Your task to perform on an android device: move an email to a new category in the gmail app Image 0: 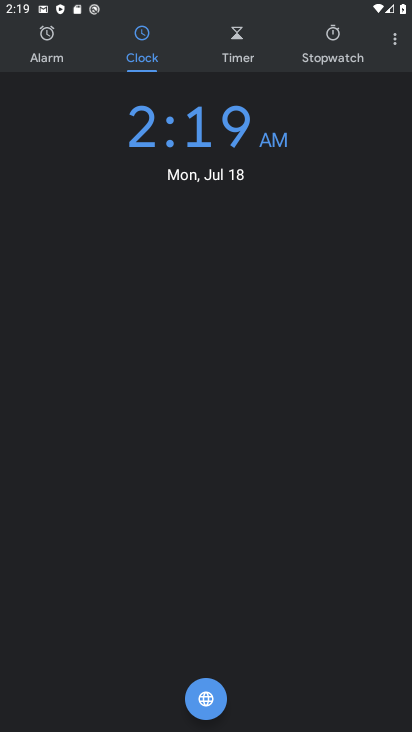
Step 0: press back button
Your task to perform on an android device: move an email to a new category in the gmail app Image 1: 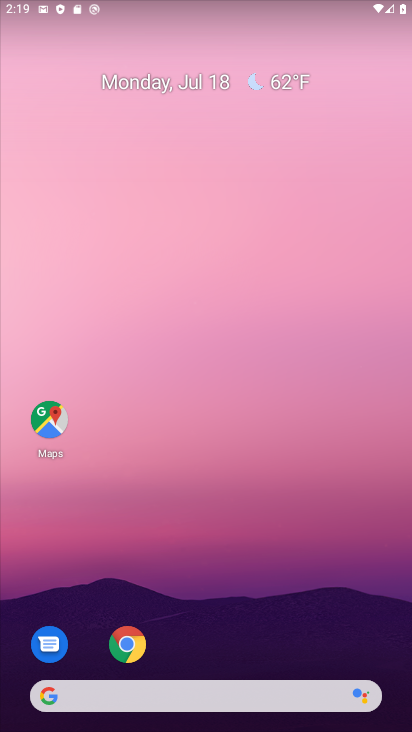
Step 1: drag from (168, 697) to (173, 158)
Your task to perform on an android device: move an email to a new category in the gmail app Image 2: 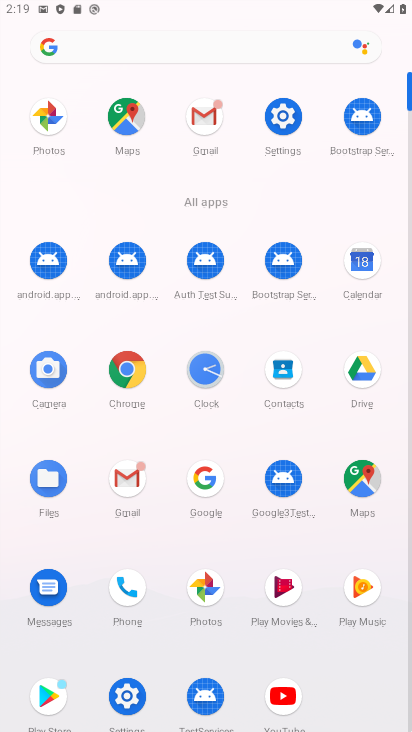
Step 2: click (119, 476)
Your task to perform on an android device: move an email to a new category in the gmail app Image 3: 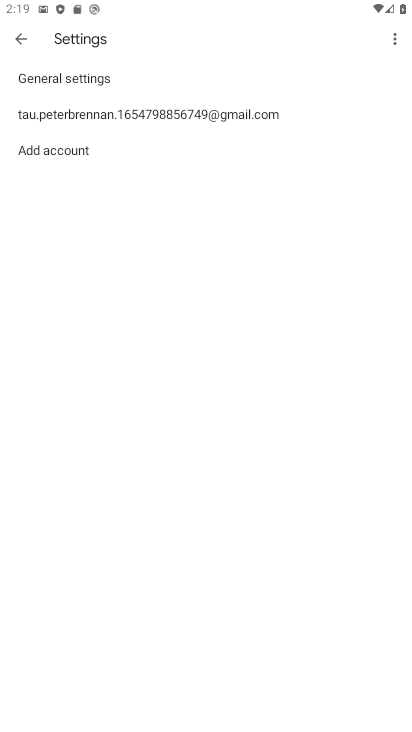
Step 3: click (124, 477)
Your task to perform on an android device: move an email to a new category in the gmail app Image 4: 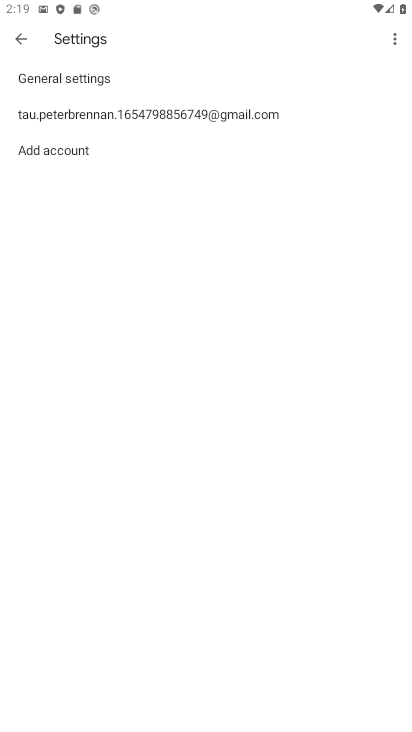
Step 4: click (127, 478)
Your task to perform on an android device: move an email to a new category in the gmail app Image 5: 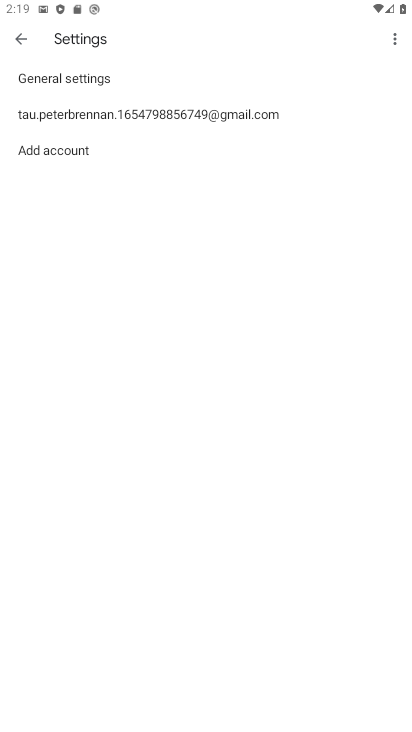
Step 5: click (128, 479)
Your task to perform on an android device: move an email to a new category in the gmail app Image 6: 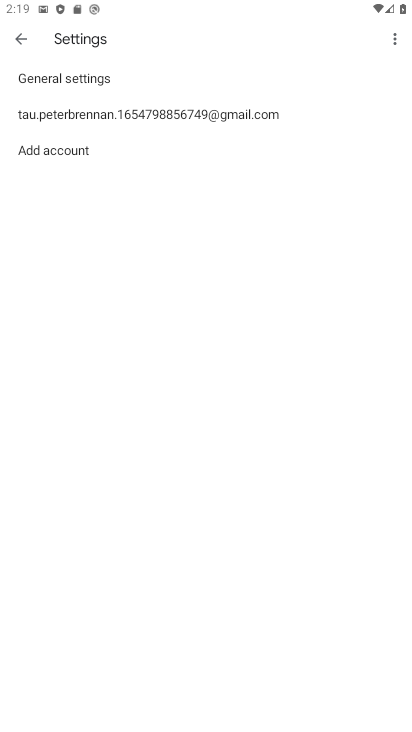
Step 6: click (128, 479)
Your task to perform on an android device: move an email to a new category in the gmail app Image 7: 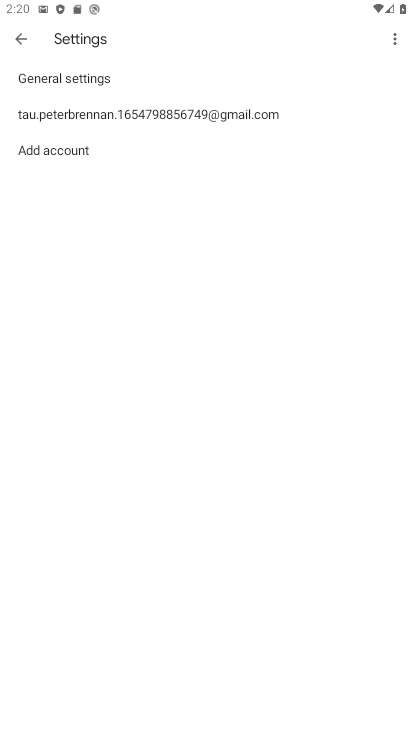
Step 7: click (136, 117)
Your task to perform on an android device: move an email to a new category in the gmail app Image 8: 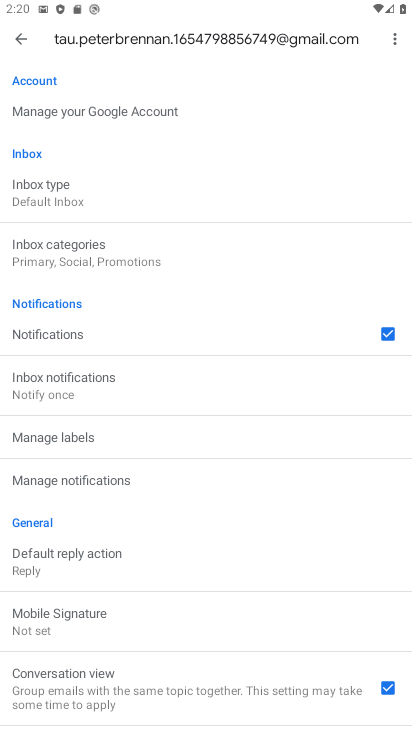
Step 8: click (15, 36)
Your task to perform on an android device: move an email to a new category in the gmail app Image 9: 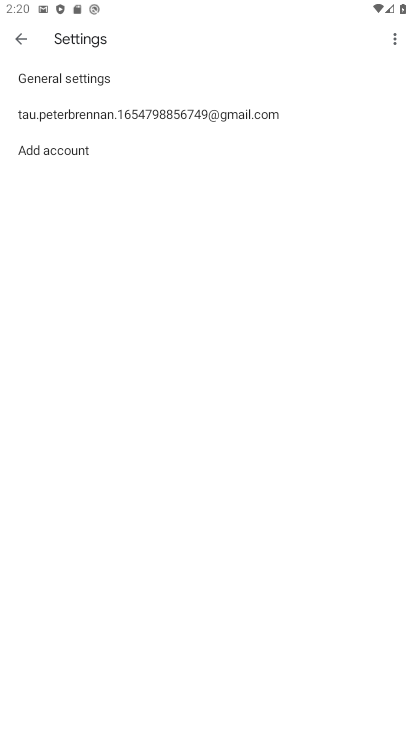
Step 9: click (109, 107)
Your task to perform on an android device: move an email to a new category in the gmail app Image 10: 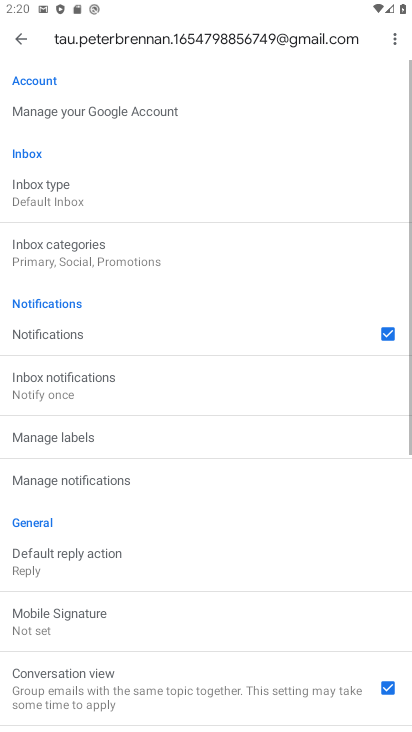
Step 10: click (25, 36)
Your task to perform on an android device: move an email to a new category in the gmail app Image 11: 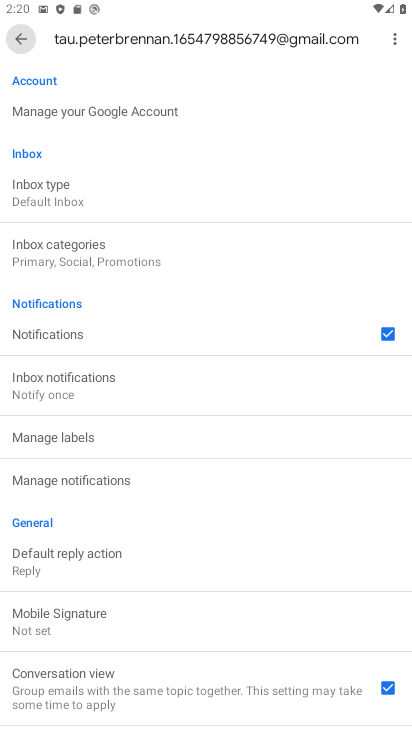
Step 11: click (20, 43)
Your task to perform on an android device: move an email to a new category in the gmail app Image 12: 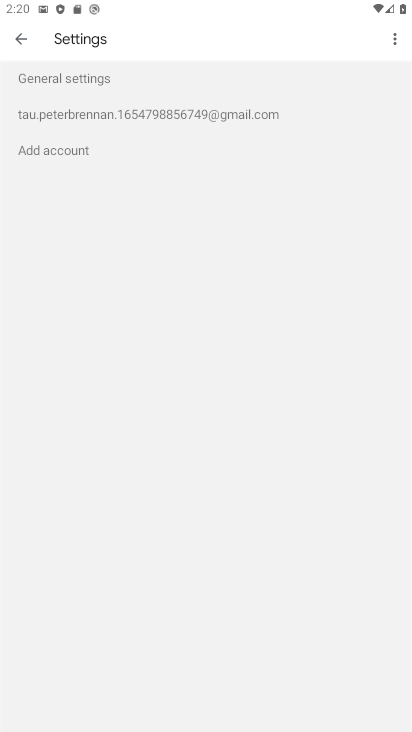
Step 12: click (20, 45)
Your task to perform on an android device: move an email to a new category in the gmail app Image 13: 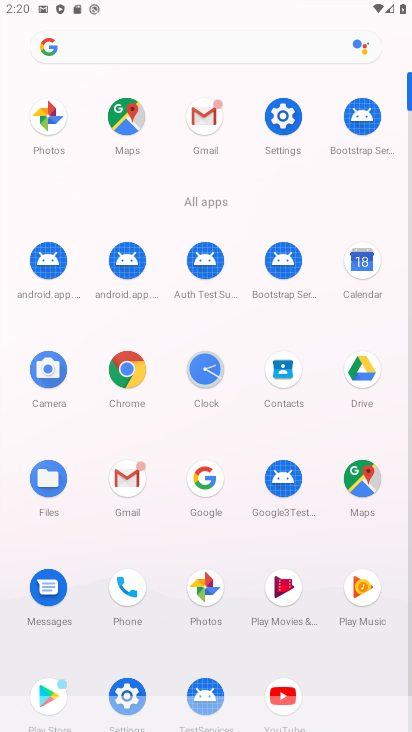
Step 13: click (140, 485)
Your task to perform on an android device: move an email to a new category in the gmail app Image 14: 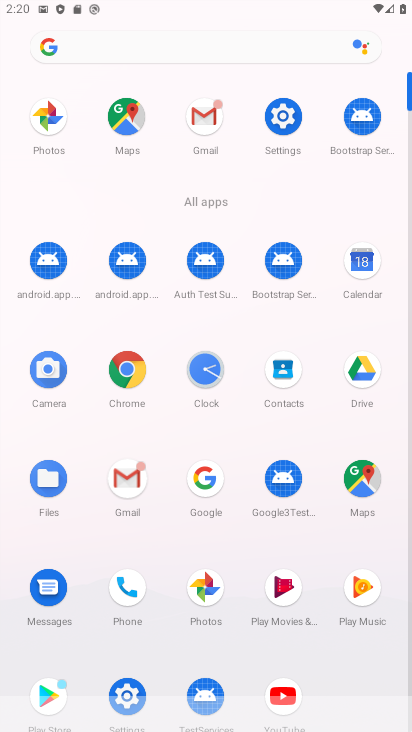
Step 14: click (140, 485)
Your task to perform on an android device: move an email to a new category in the gmail app Image 15: 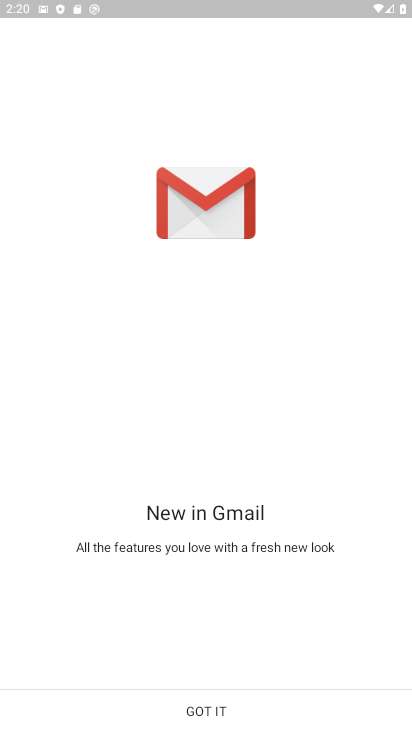
Step 15: click (223, 719)
Your task to perform on an android device: move an email to a new category in the gmail app Image 16: 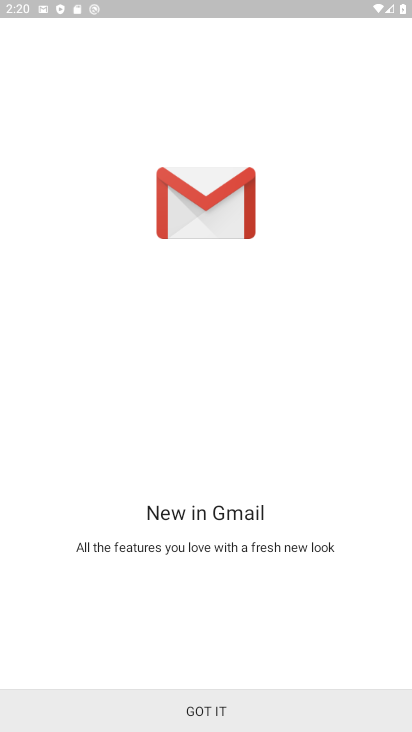
Step 16: click (227, 715)
Your task to perform on an android device: move an email to a new category in the gmail app Image 17: 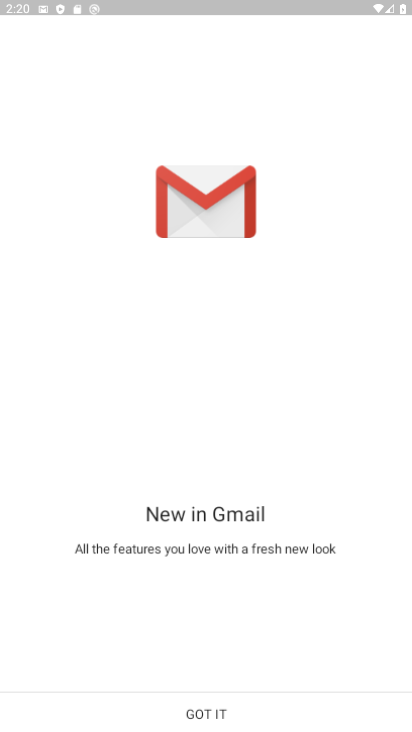
Step 17: click (228, 716)
Your task to perform on an android device: move an email to a new category in the gmail app Image 18: 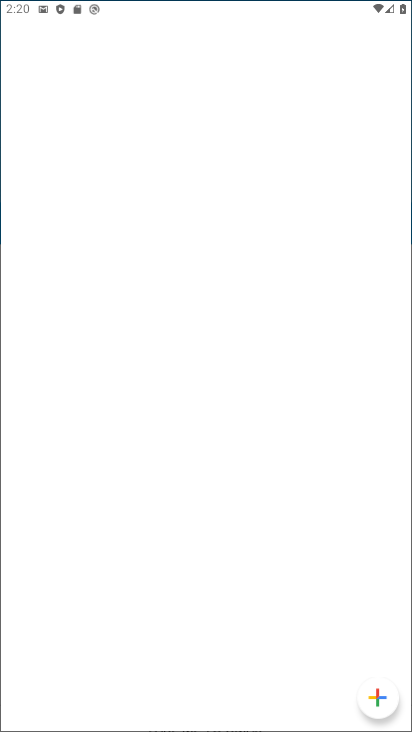
Step 18: click (246, 698)
Your task to perform on an android device: move an email to a new category in the gmail app Image 19: 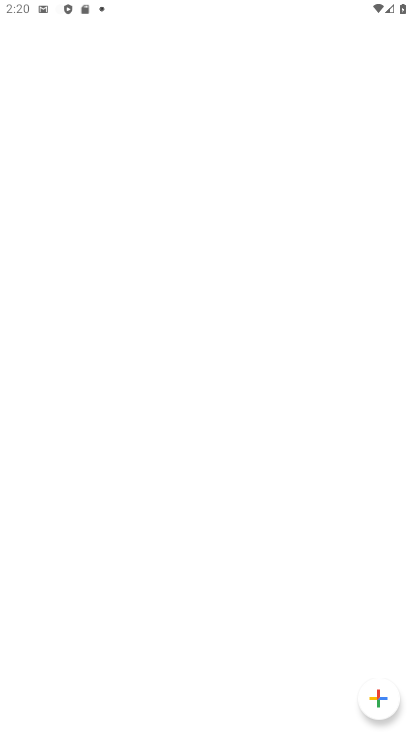
Step 19: click (247, 698)
Your task to perform on an android device: move an email to a new category in the gmail app Image 20: 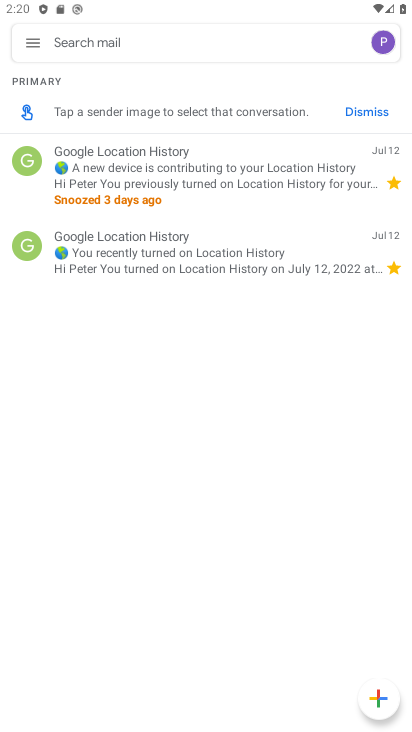
Step 20: click (261, 178)
Your task to perform on an android device: move an email to a new category in the gmail app Image 21: 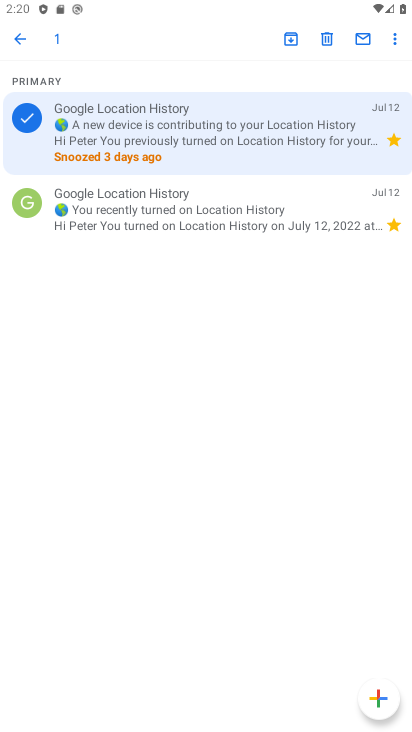
Step 21: click (388, 43)
Your task to perform on an android device: move an email to a new category in the gmail app Image 22: 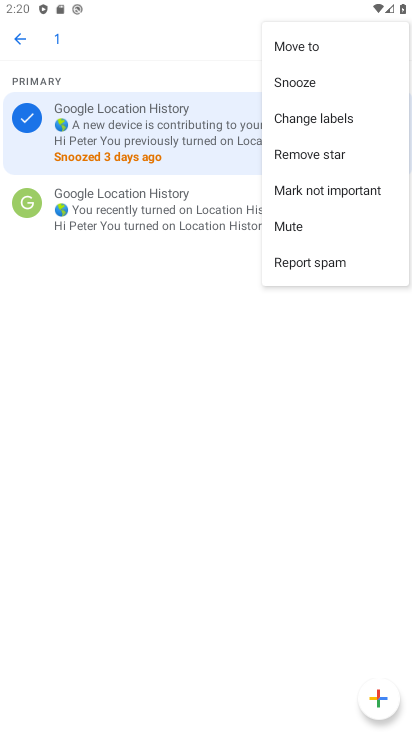
Step 22: click (310, 152)
Your task to perform on an android device: move an email to a new category in the gmail app Image 23: 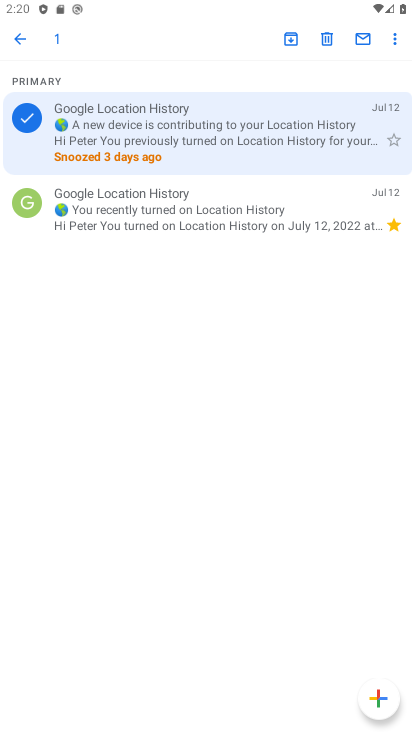
Step 23: task complete